Your task to perform on an android device: uninstall "Facebook" Image 0: 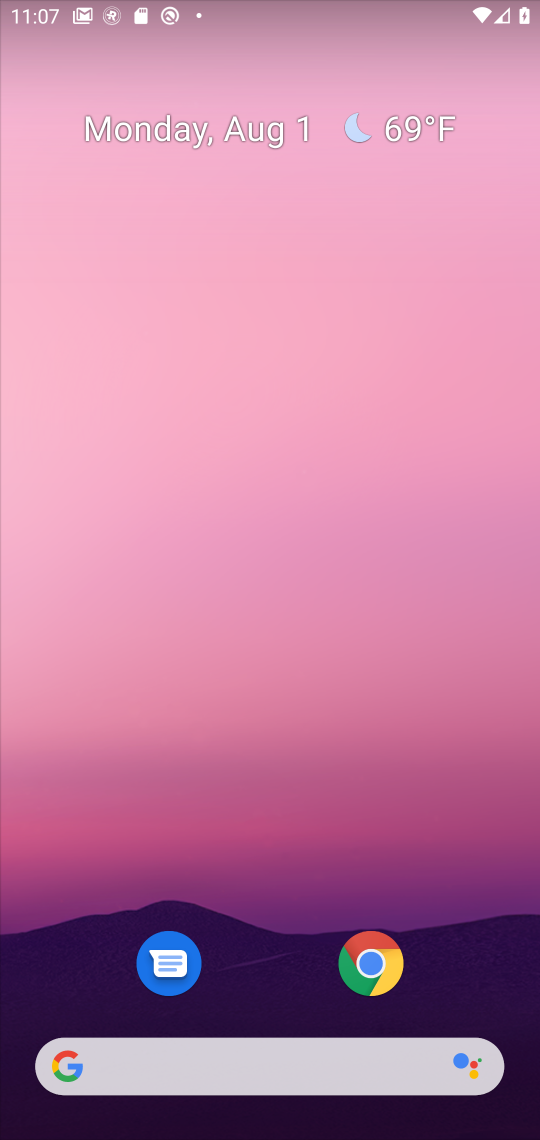
Step 0: drag from (247, 1012) to (222, 250)
Your task to perform on an android device: uninstall "Facebook" Image 1: 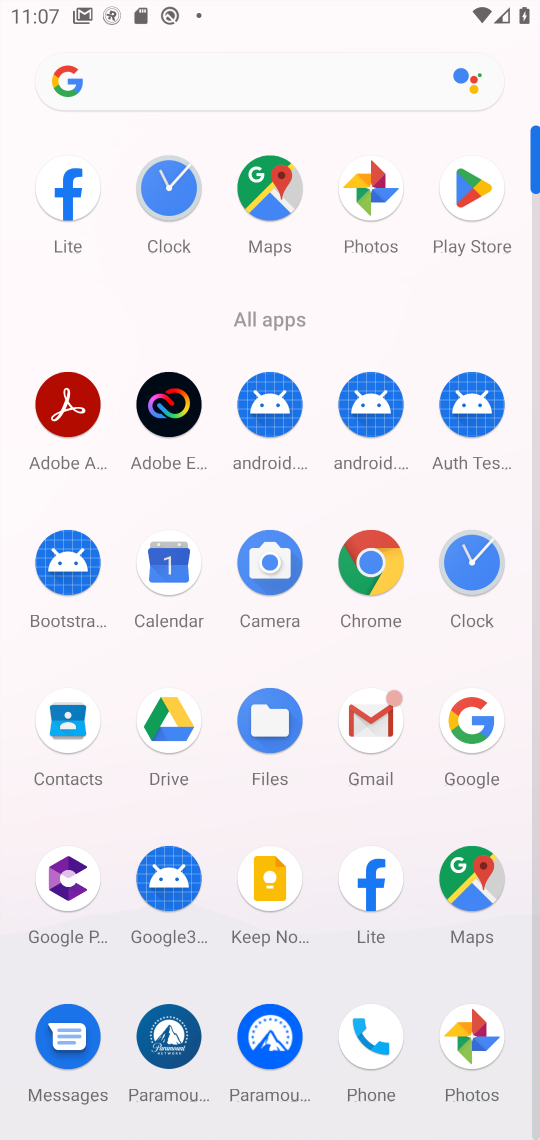
Step 1: click (483, 214)
Your task to perform on an android device: uninstall "Facebook" Image 2: 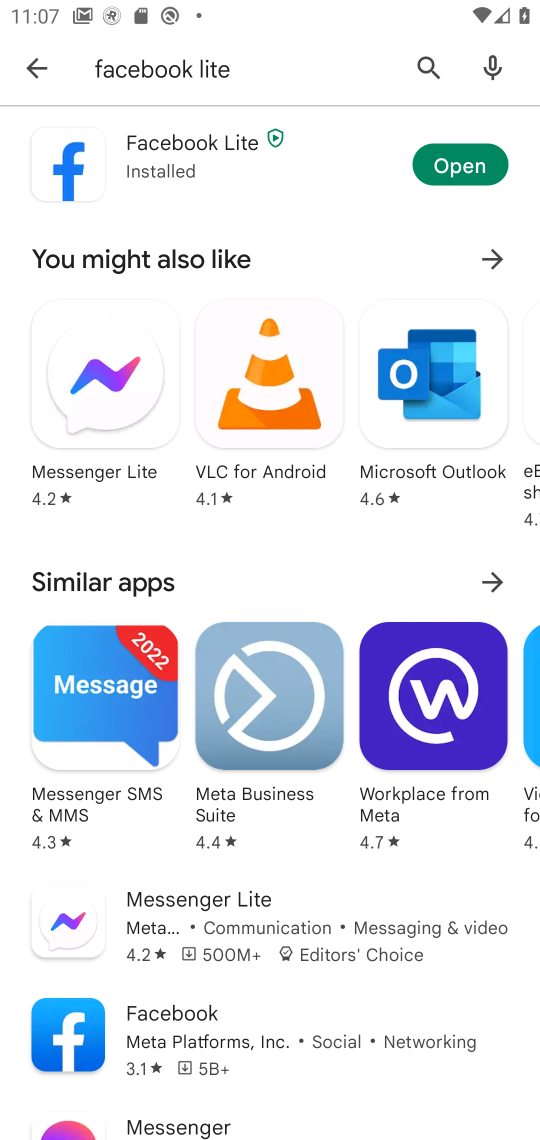
Step 2: click (233, 71)
Your task to perform on an android device: uninstall "Facebook" Image 3: 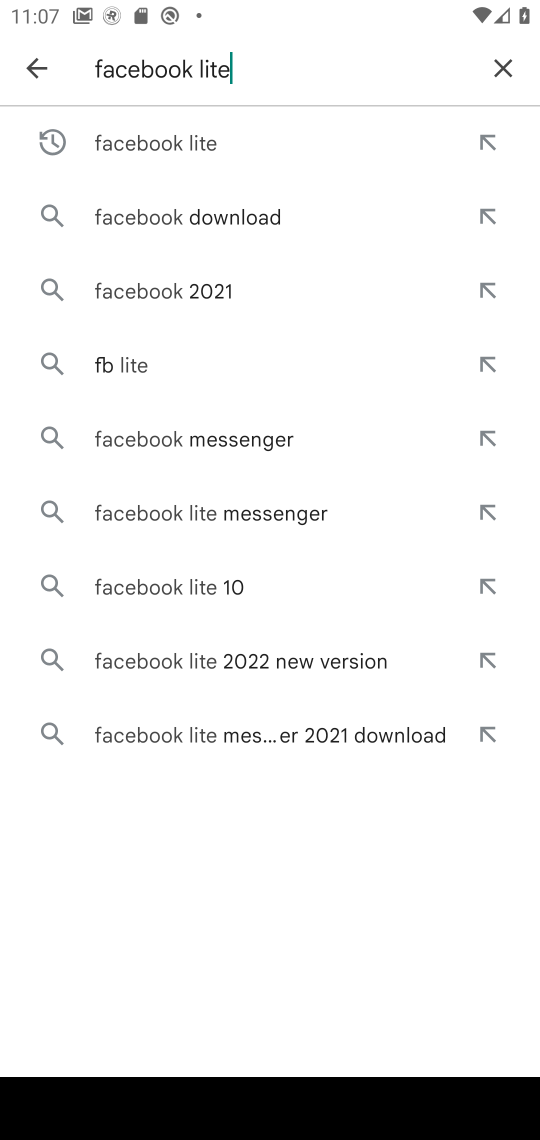
Step 3: click (204, 65)
Your task to perform on an android device: uninstall "Facebook" Image 4: 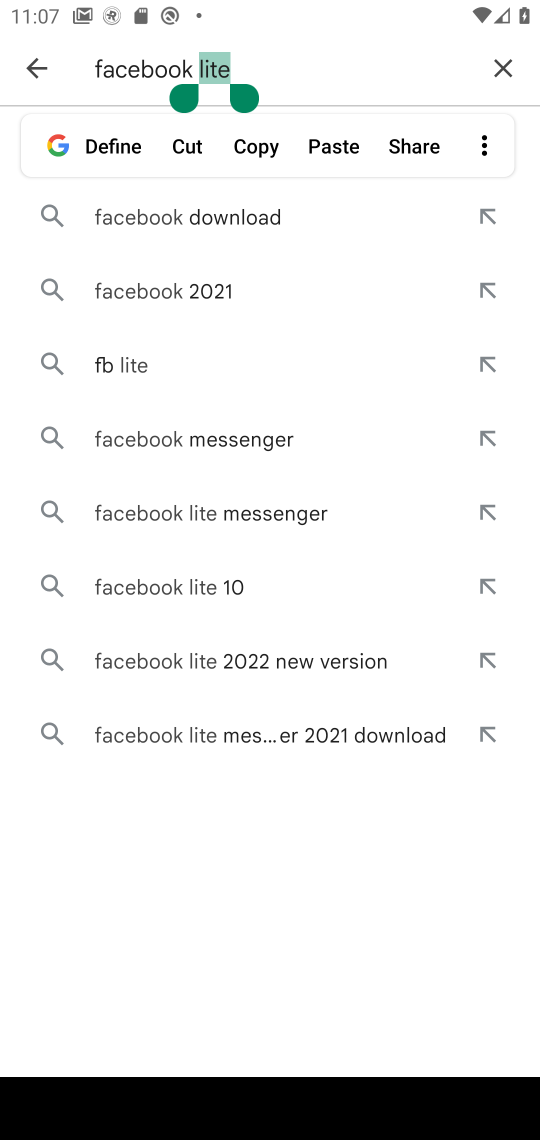
Step 4: type " "
Your task to perform on an android device: uninstall "Facebook" Image 5: 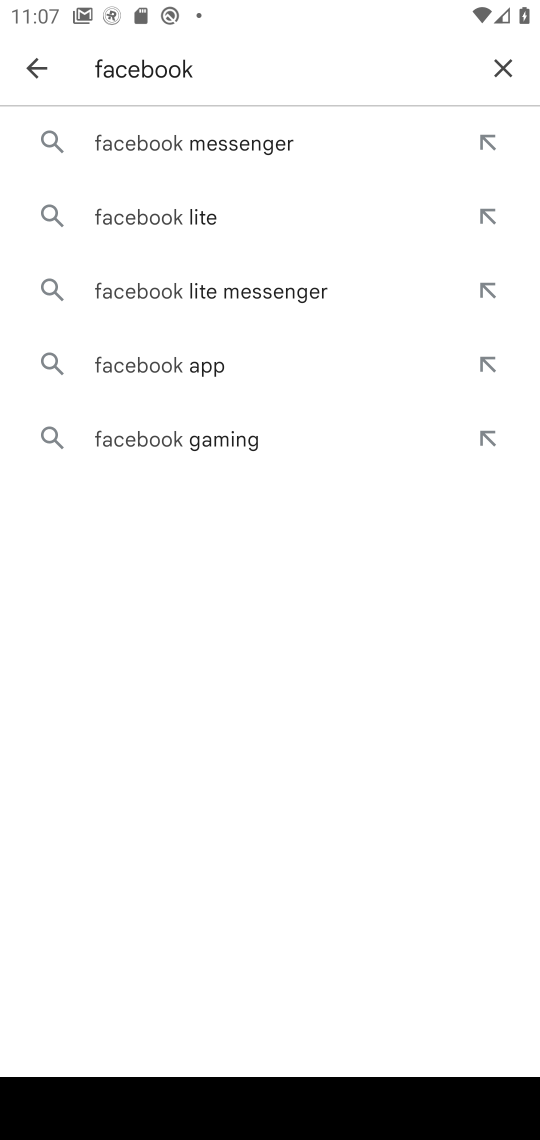
Step 5: click (156, 154)
Your task to perform on an android device: uninstall "Facebook" Image 6: 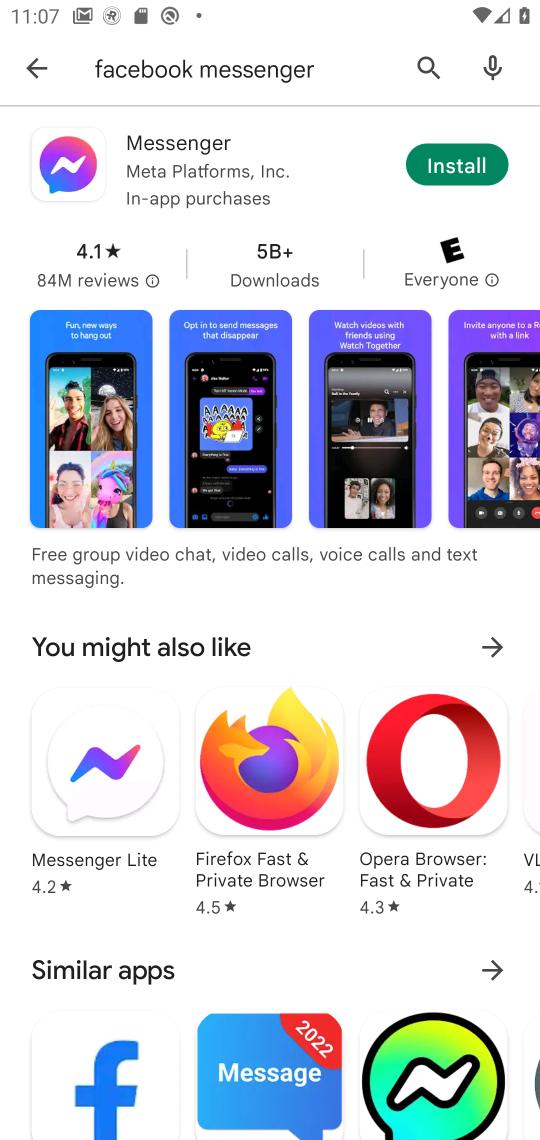
Step 6: click (97, 1067)
Your task to perform on an android device: uninstall "Facebook" Image 7: 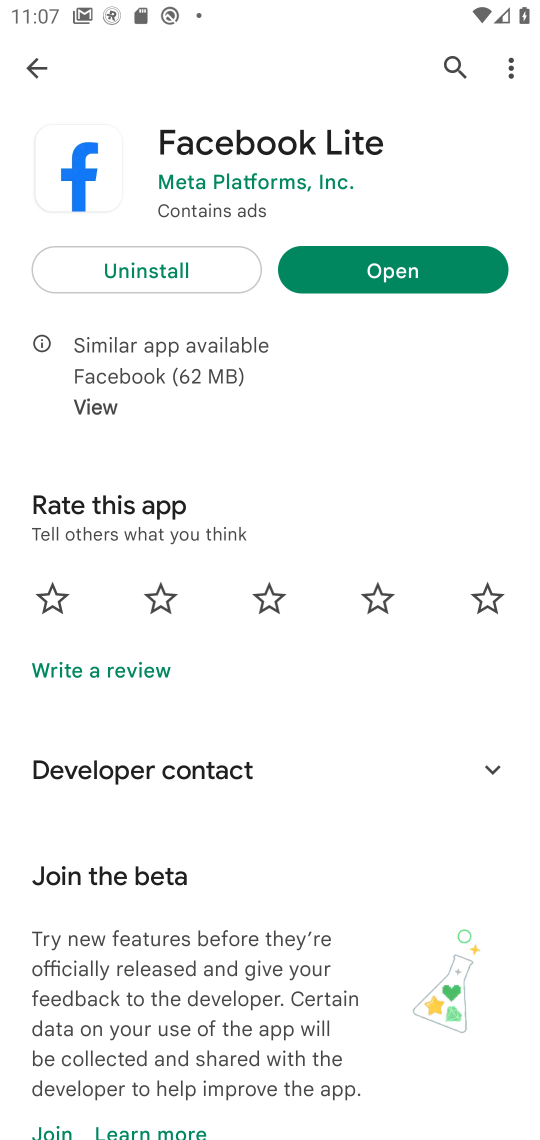
Step 7: task complete